Your task to perform on an android device: Do I have any events tomorrow? Image 0: 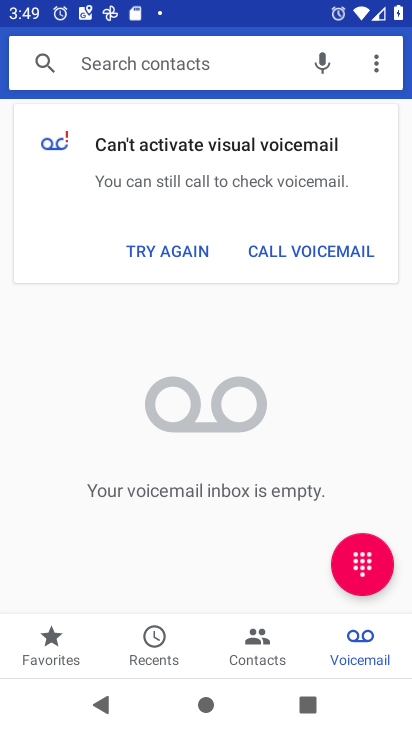
Step 0: press home button
Your task to perform on an android device: Do I have any events tomorrow? Image 1: 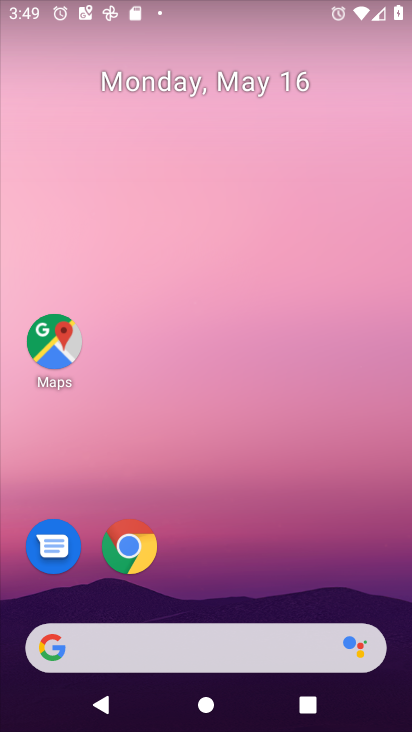
Step 1: drag from (369, 594) to (367, 96)
Your task to perform on an android device: Do I have any events tomorrow? Image 2: 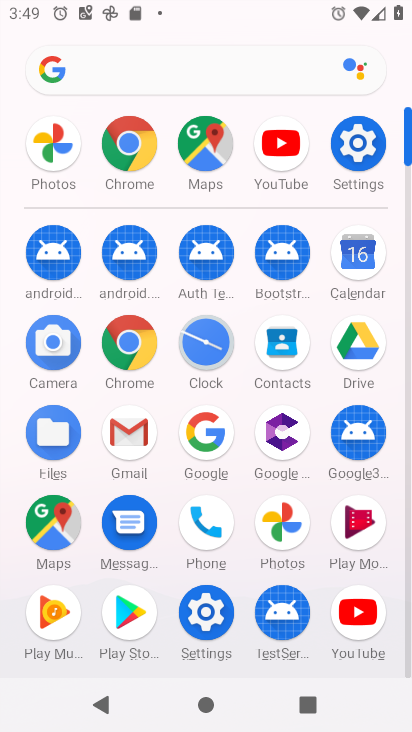
Step 2: click (369, 255)
Your task to perform on an android device: Do I have any events tomorrow? Image 3: 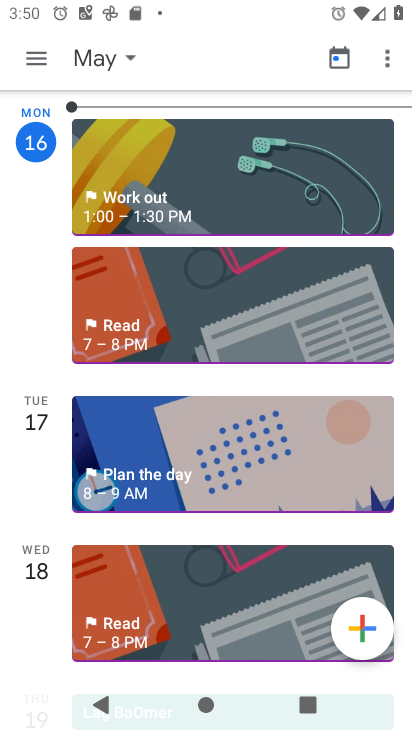
Step 3: drag from (328, 222) to (312, 375)
Your task to perform on an android device: Do I have any events tomorrow? Image 4: 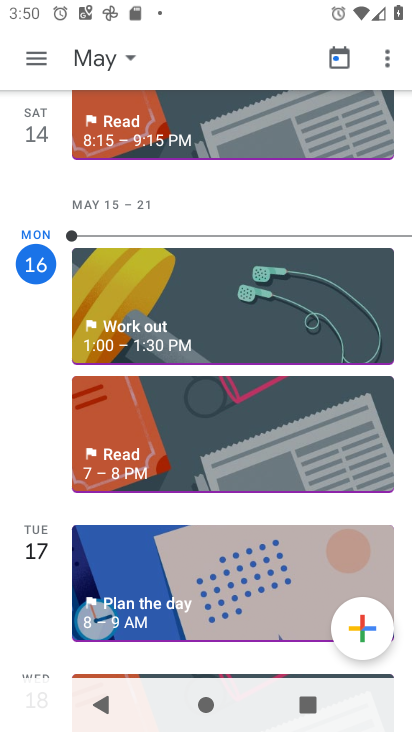
Step 4: click (255, 563)
Your task to perform on an android device: Do I have any events tomorrow? Image 5: 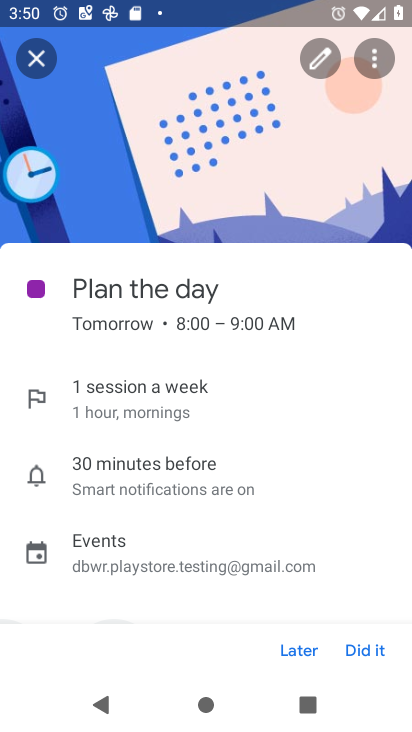
Step 5: task complete